Your task to perform on an android device: Open display settings Image 0: 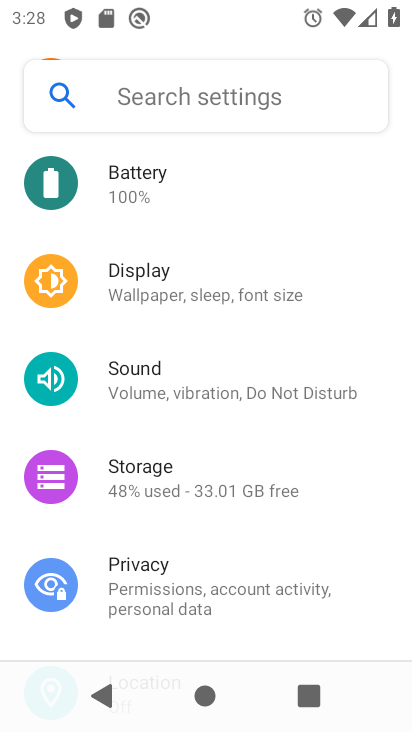
Step 0: click (178, 273)
Your task to perform on an android device: Open display settings Image 1: 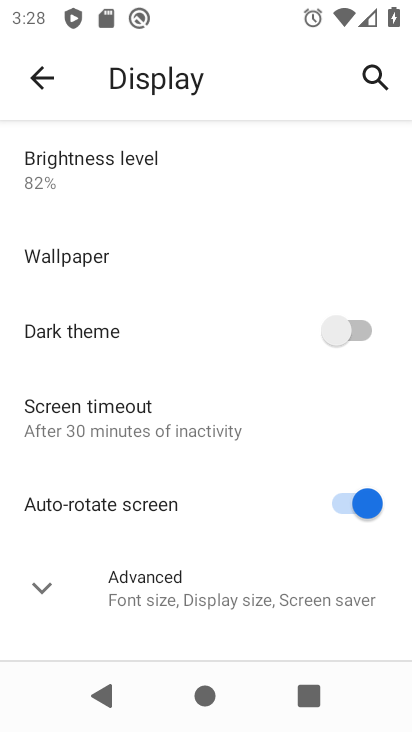
Step 1: task complete